Your task to perform on an android device: Open ESPN.com Image 0: 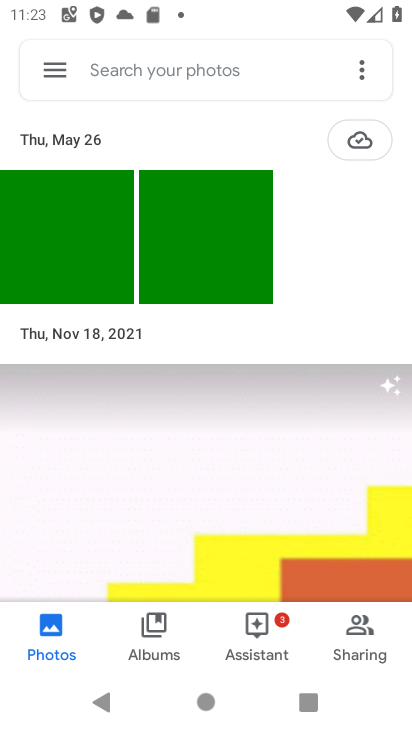
Step 0: press home button
Your task to perform on an android device: Open ESPN.com Image 1: 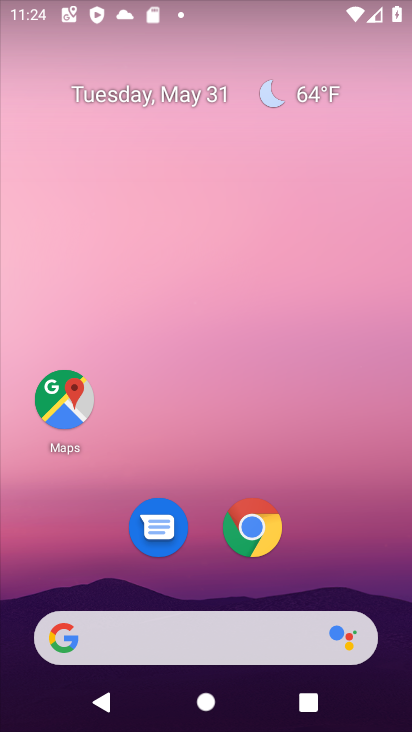
Step 1: click (164, 637)
Your task to perform on an android device: Open ESPN.com Image 2: 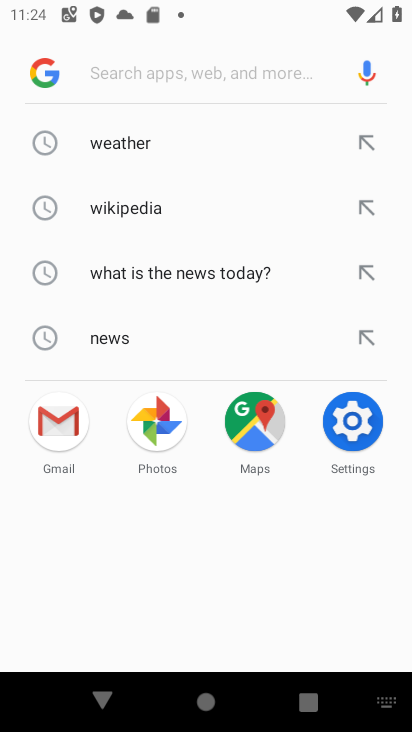
Step 2: type "espn.com"
Your task to perform on an android device: Open ESPN.com Image 3: 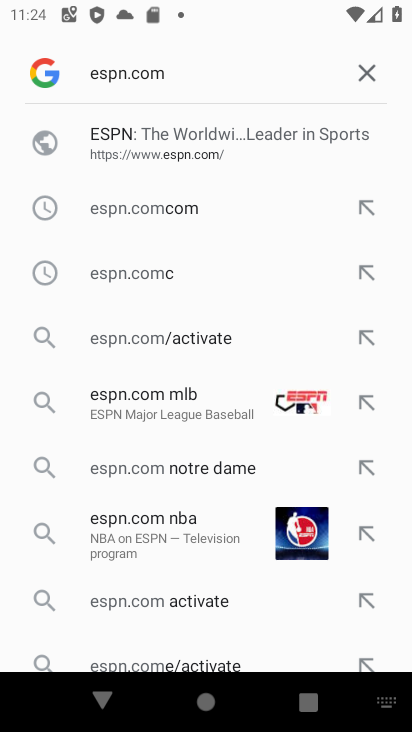
Step 3: click (253, 143)
Your task to perform on an android device: Open ESPN.com Image 4: 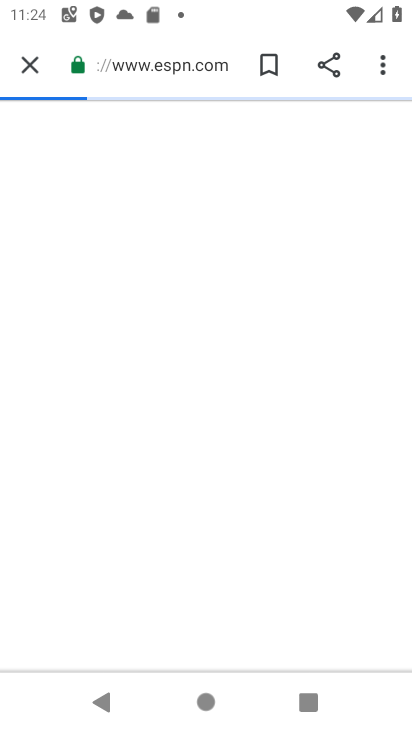
Step 4: task complete